Your task to perform on an android device: open chrome privacy settings Image 0: 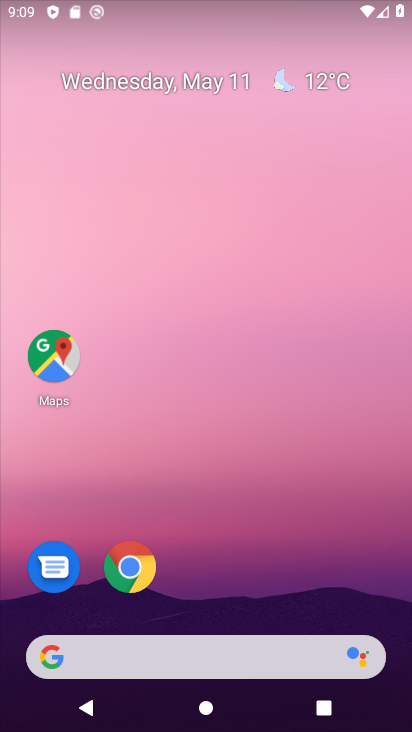
Step 0: click (120, 568)
Your task to perform on an android device: open chrome privacy settings Image 1: 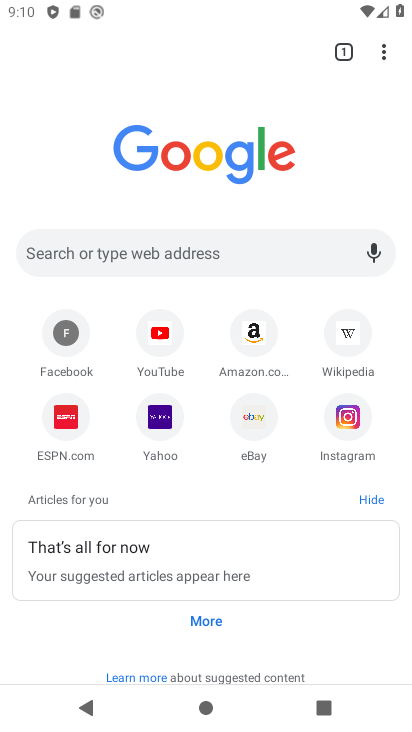
Step 1: click (383, 50)
Your task to perform on an android device: open chrome privacy settings Image 2: 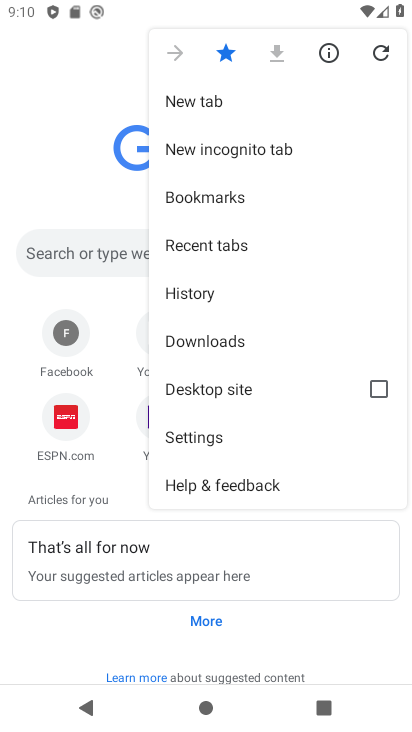
Step 2: click (195, 438)
Your task to perform on an android device: open chrome privacy settings Image 3: 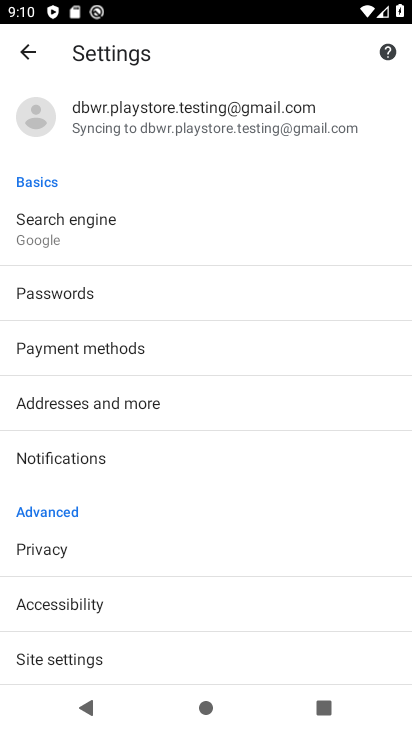
Step 3: click (56, 556)
Your task to perform on an android device: open chrome privacy settings Image 4: 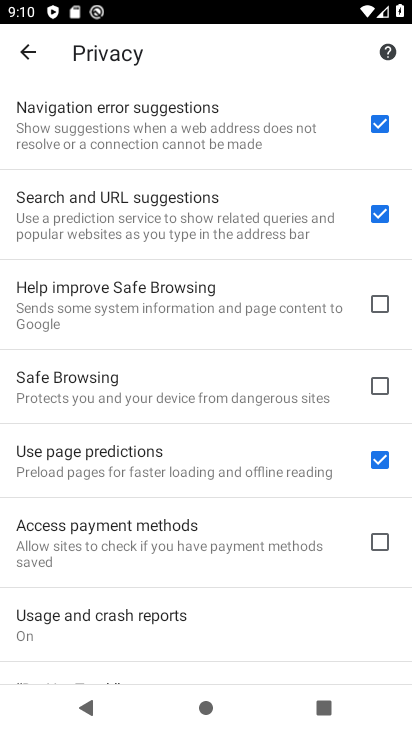
Step 4: task complete